Your task to perform on an android device: turn on sleep mode Image 0: 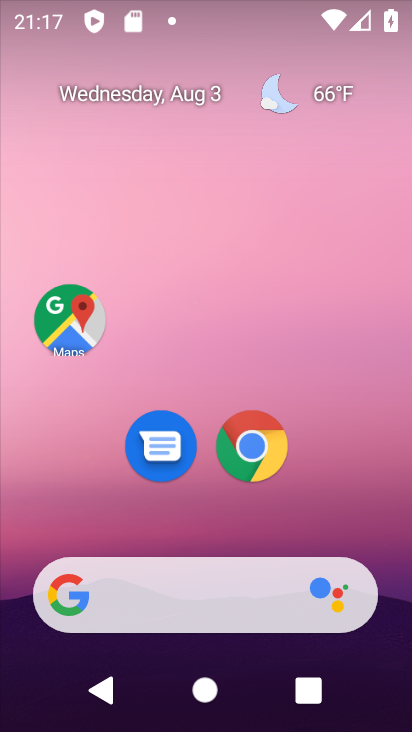
Step 0: drag from (373, 705) to (318, 177)
Your task to perform on an android device: turn on sleep mode Image 1: 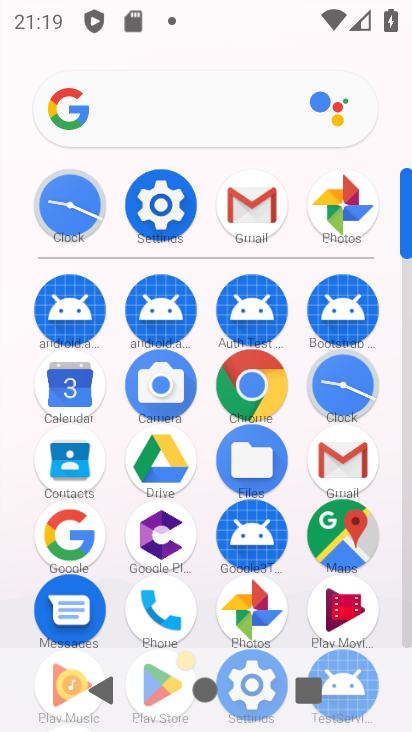
Step 1: click (156, 198)
Your task to perform on an android device: turn on sleep mode Image 2: 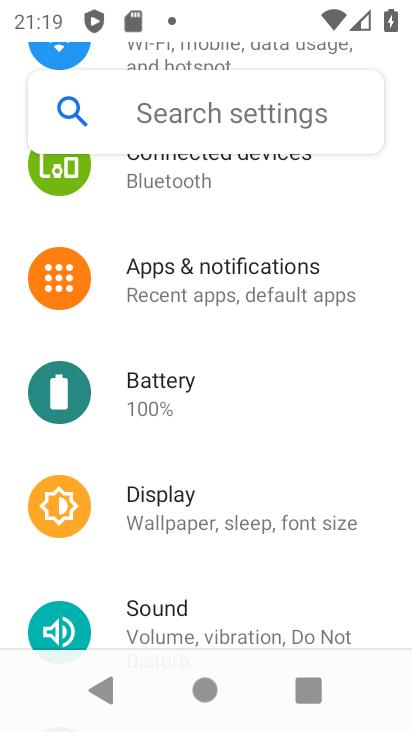
Step 2: click (182, 507)
Your task to perform on an android device: turn on sleep mode Image 3: 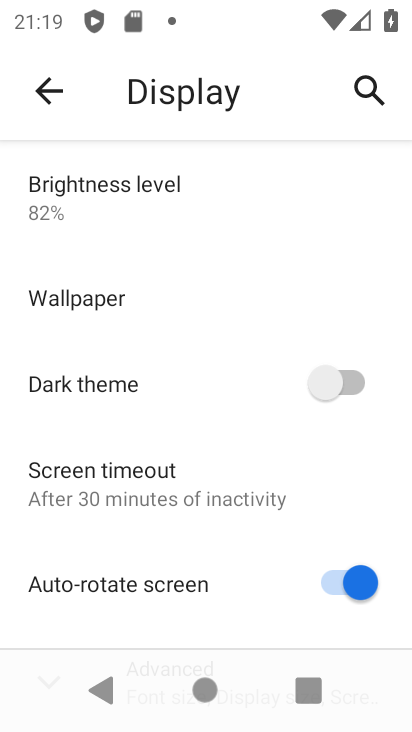
Step 3: click (93, 494)
Your task to perform on an android device: turn on sleep mode Image 4: 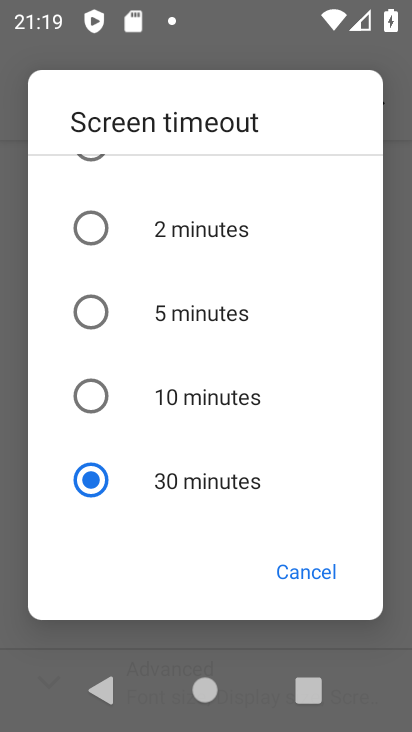
Step 4: task complete